Your task to perform on an android device: Go to notification settings Image 0: 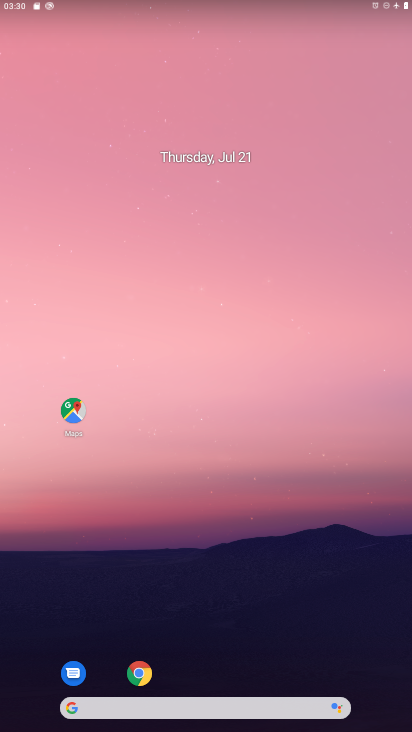
Step 0: drag from (295, 574) to (336, 157)
Your task to perform on an android device: Go to notification settings Image 1: 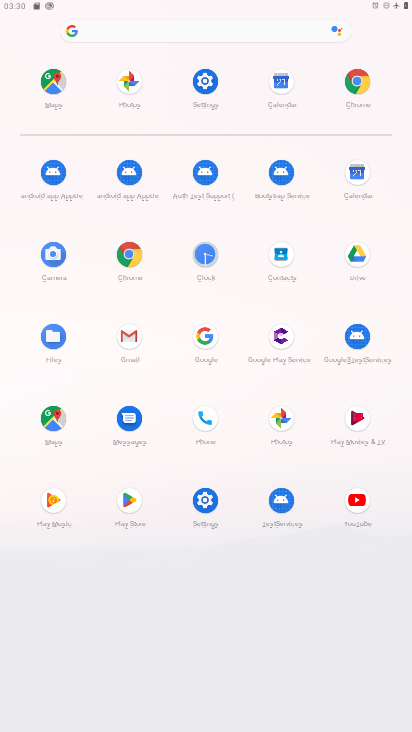
Step 1: click (204, 79)
Your task to perform on an android device: Go to notification settings Image 2: 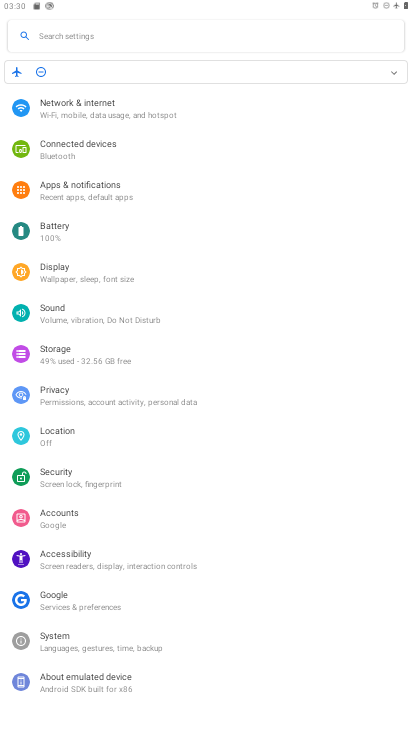
Step 2: click (104, 190)
Your task to perform on an android device: Go to notification settings Image 3: 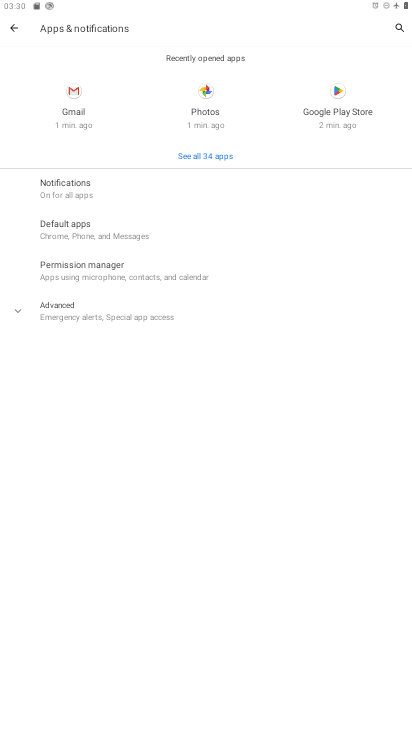
Step 3: click (113, 186)
Your task to perform on an android device: Go to notification settings Image 4: 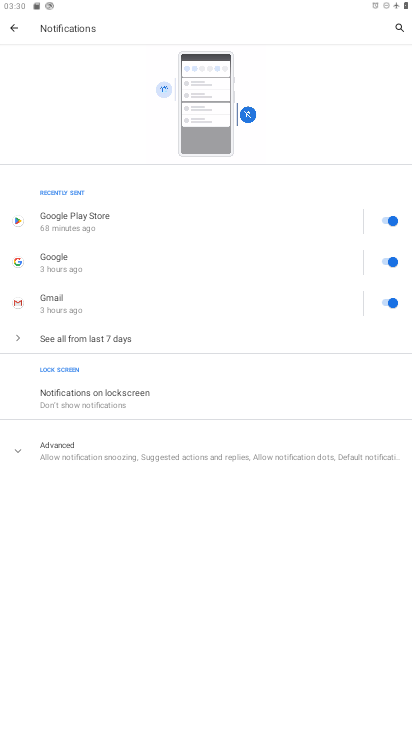
Step 4: task complete